Your task to perform on an android device: Go to display settings Image 0: 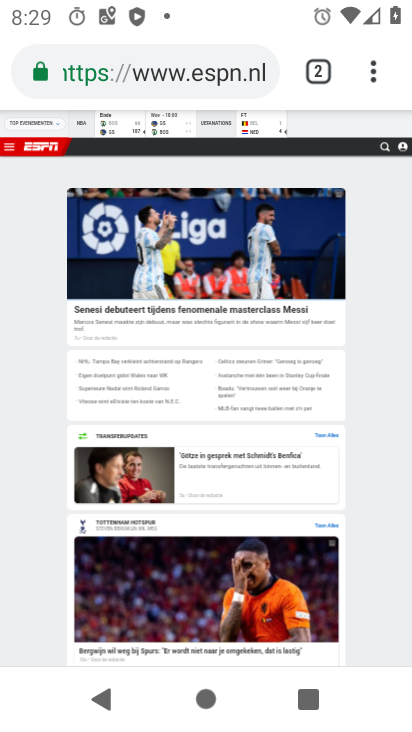
Step 0: press back button
Your task to perform on an android device: Go to display settings Image 1: 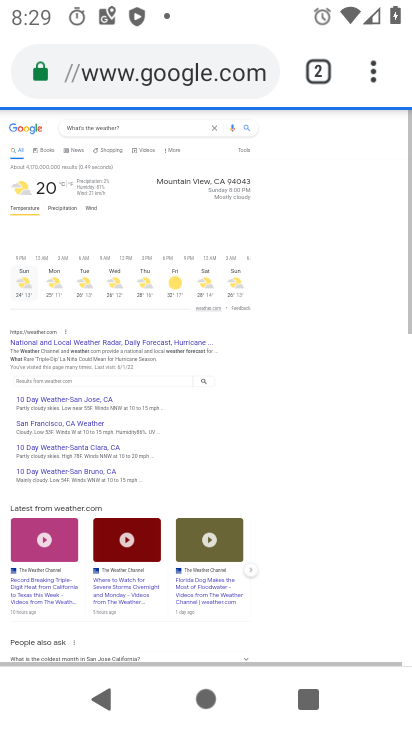
Step 1: press home button
Your task to perform on an android device: Go to display settings Image 2: 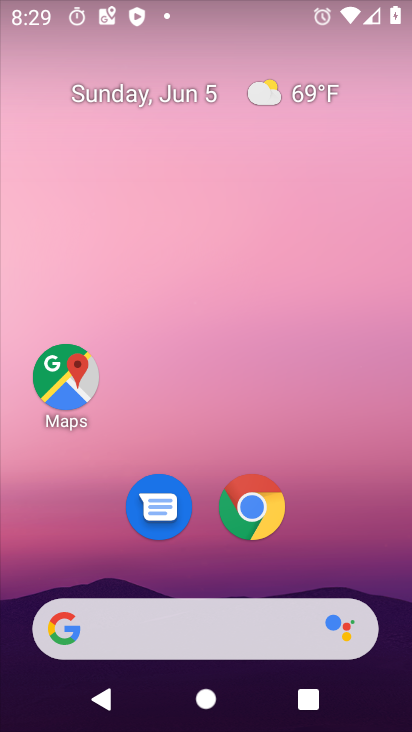
Step 2: drag from (356, 533) to (223, 7)
Your task to perform on an android device: Go to display settings Image 3: 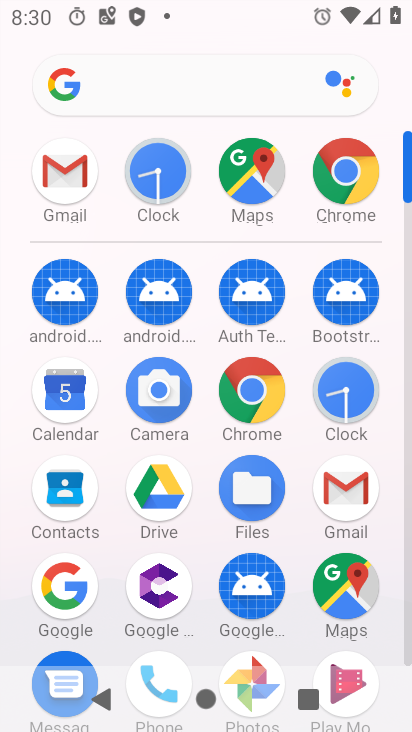
Step 3: drag from (8, 657) to (11, 271)
Your task to perform on an android device: Go to display settings Image 4: 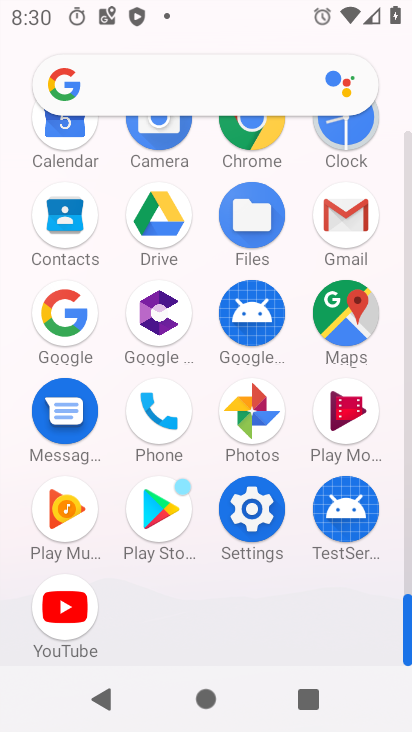
Step 4: click (250, 506)
Your task to perform on an android device: Go to display settings Image 5: 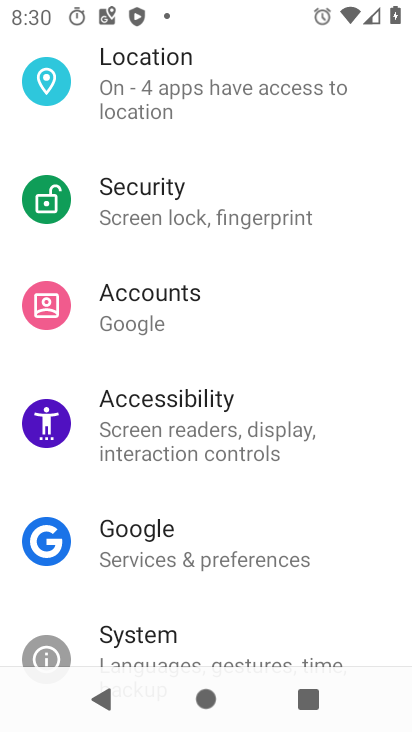
Step 5: drag from (263, 51) to (205, 512)
Your task to perform on an android device: Go to display settings Image 6: 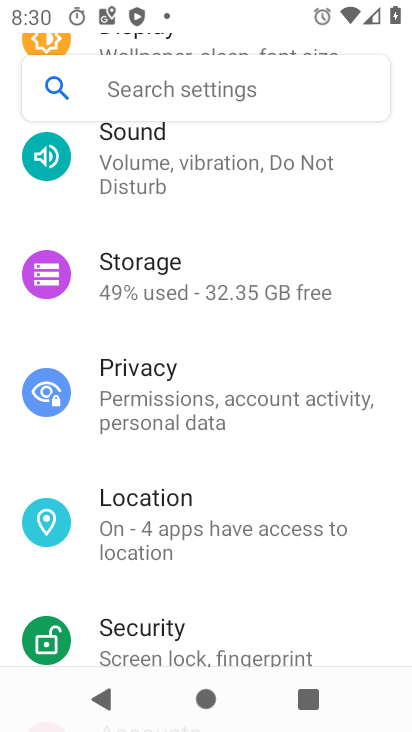
Step 6: drag from (275, 230) to (295, 615)
Your task to perform on an android device: Go to display settings Image 7: 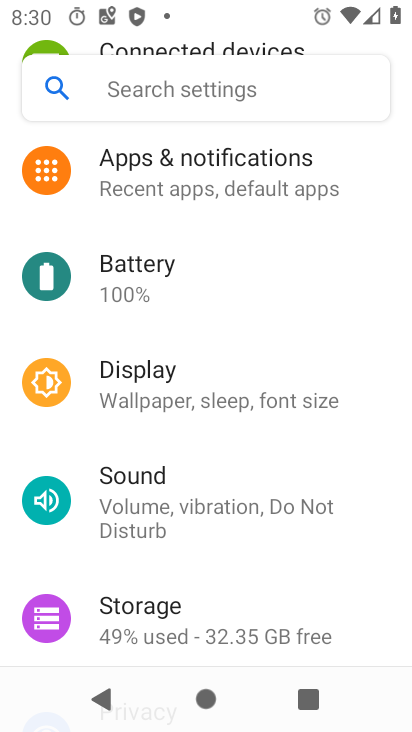
Step 7: click (173, 377)
Your task to perform on an android device: Go to display settings Image 8: 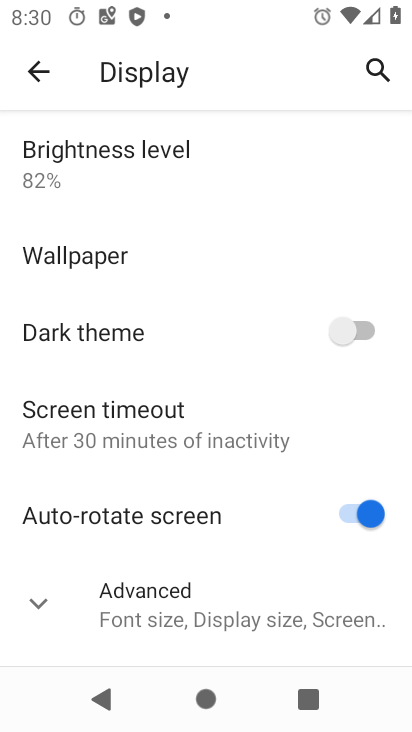
Step 8: click (27, 612)
Your task to perform on an android device: Go to display settings Image 9: 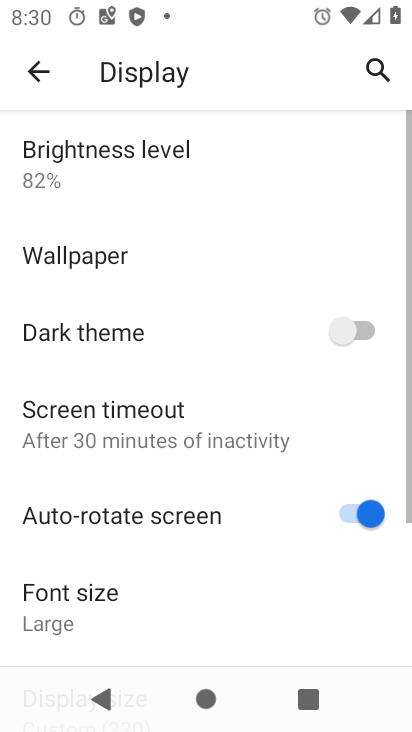
Step 9: task complete